Your task to perform on an android device: toggle javascript in the chrome app Image 0: 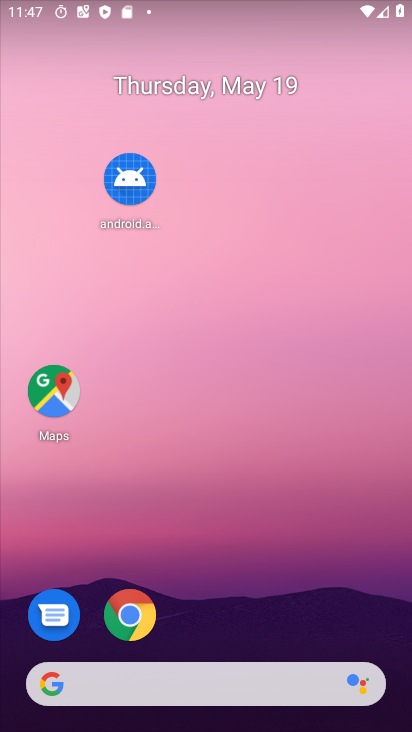
Step 0: click (129, 622)
Your task to perform on an android device: toggle javascript in the chrome app Image 1: 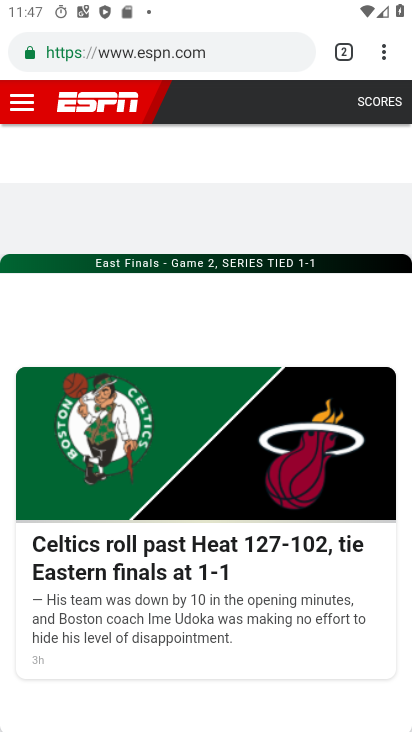
Step 1: click (390, 60)
Your task to perform on an android device: toggle javascript in the chrome app Image 2: 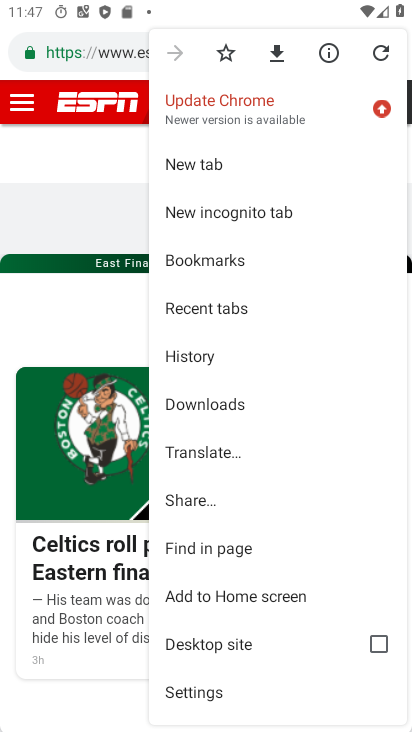
Step 2: click (225, 690)
Your task to perform on an android device: toggle javascript in the chrome app Image 3: 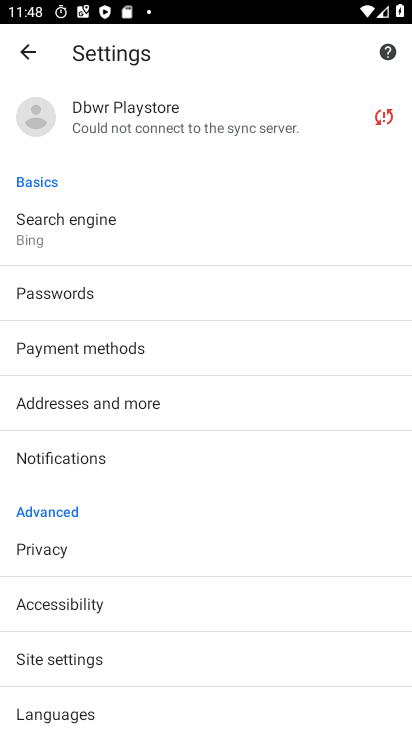
Step 3: click (131, 650)
Your task to perform on an android device: toggle javascript in the chrome app Image 4: 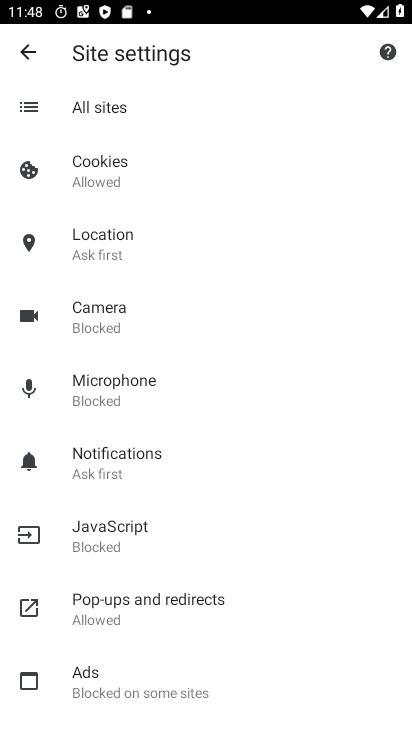
Step 4: click (126, 541)
Your task to perform on an android device: toggle javascript in the chrome app Image 5: 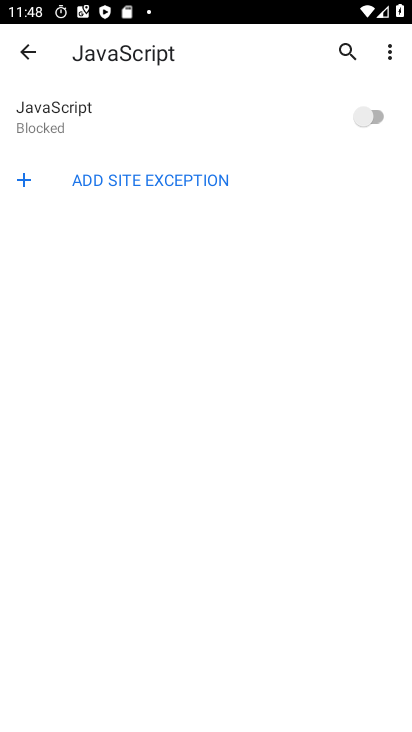
Step 5: click (372, 122)
Your task to perform on an android device: toggle javascript in the chrome app Image 6: 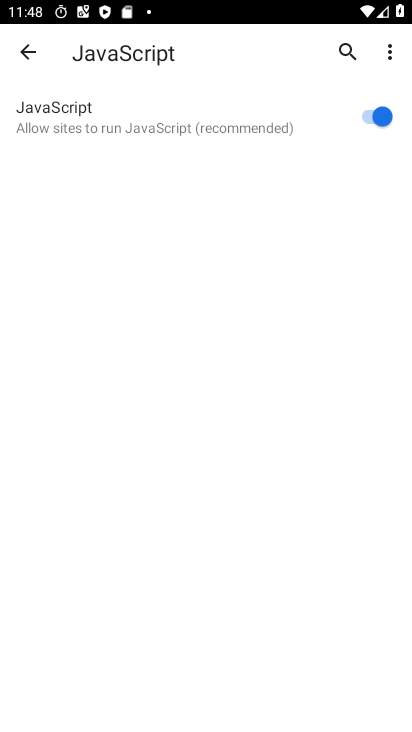
Step 6: task complete